Your task to perform on an android device: What is the recent news? Image 0: 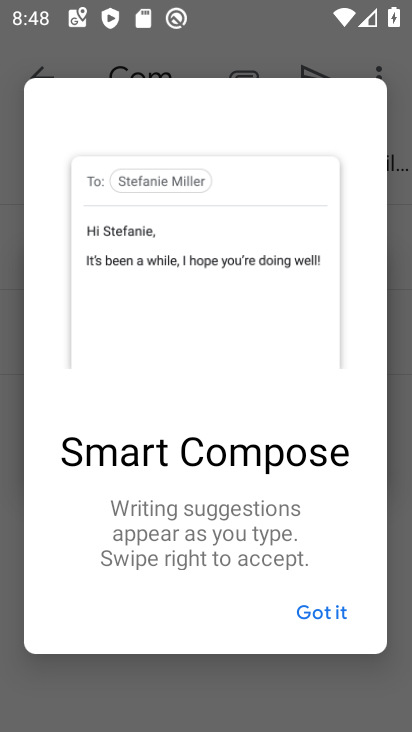
Step 0: press home button
Your task to perform on an android device: What is the recent news? Image 1: 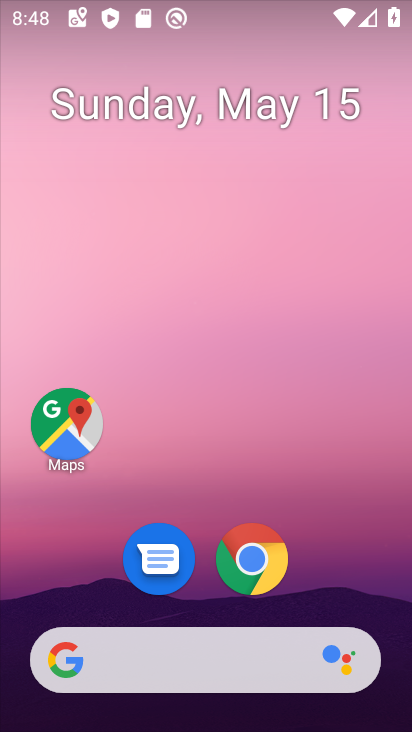
Step 1: click (239, 636)
Your task to perform on an android device: What is the recent news? Image 2: 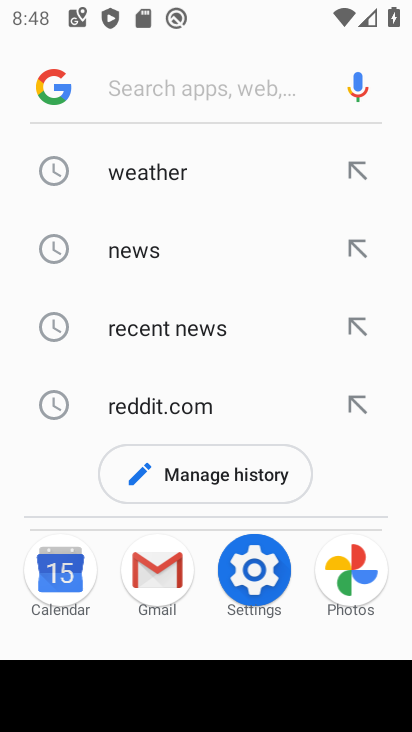
Step 2: click (196, 171)
Your task to perform on an android device: What is the recent news? Image 3: 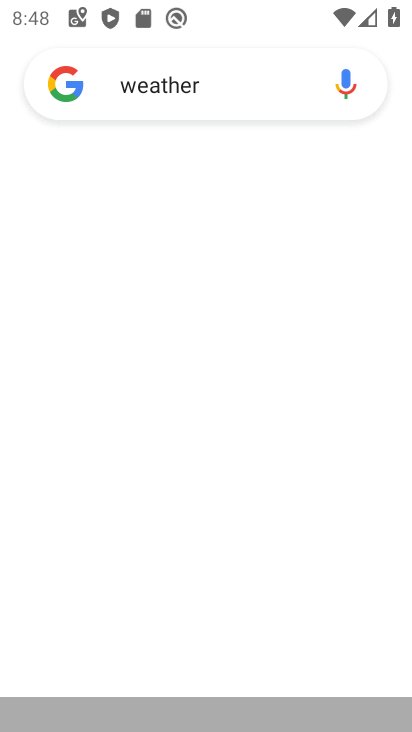
Step 3: click (181, 230)
Your task to perform on an android device: What is the recent news? Image 4: 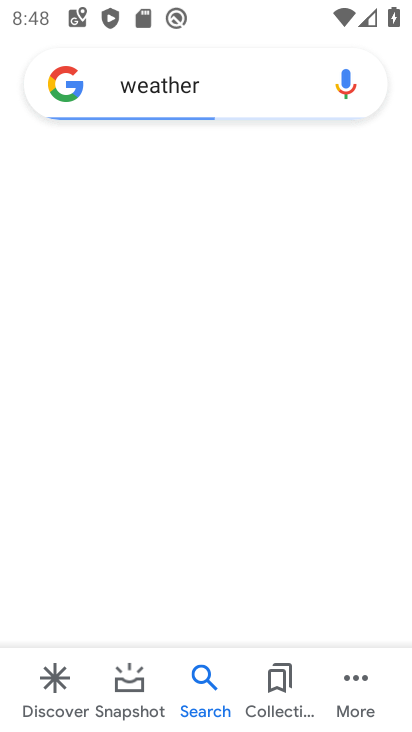
Step 4: click (181, 230)
Your task to perform on an android device: What is the recent news? Image 5: 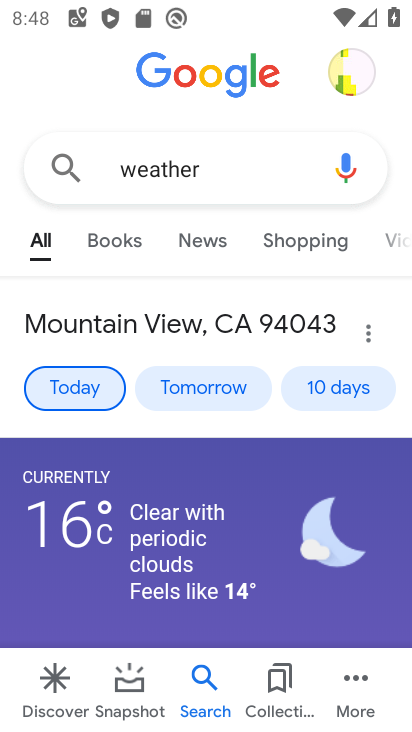
Step 5: press home button
Your task to perform on an android device: What is the recent news? Image 6: 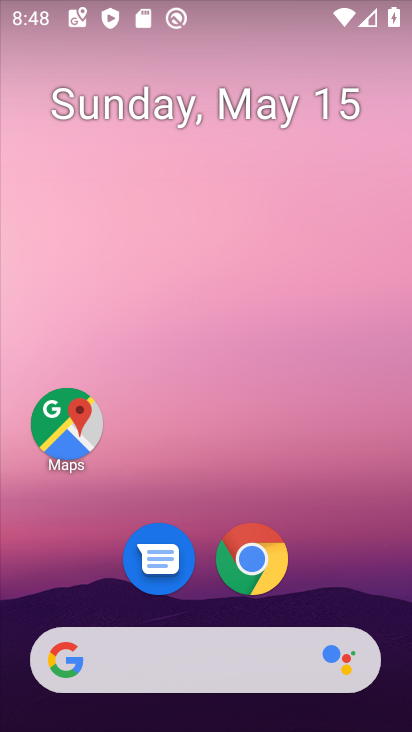
Step 6: click (211, 676)
Your task to perform on an android device: What is the recent news? Image 7: 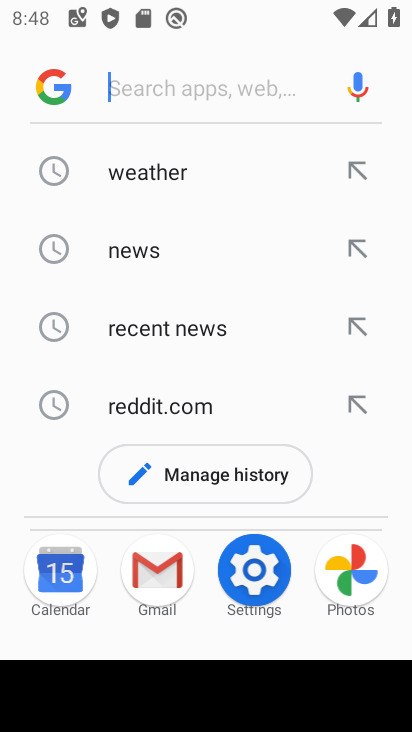
Step 7: click (190, 245)
Your task to perform on an android device: What is the recent news? Image 8: 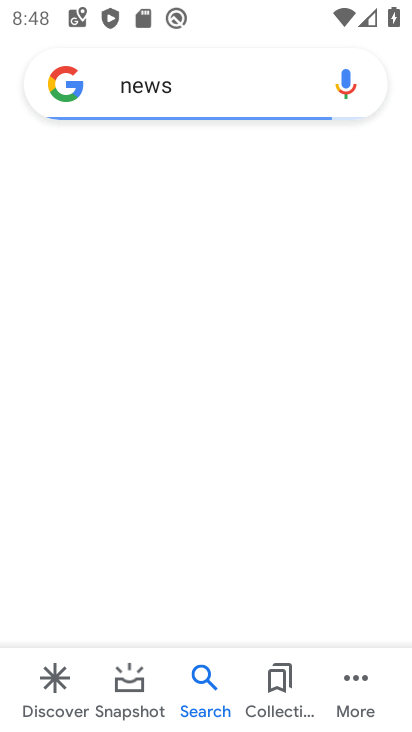
Step 8: task complete